Your task to perform on an android device: Search for "corsair k70" on ebay, select the first entry, and add it to the cart. Image 0: 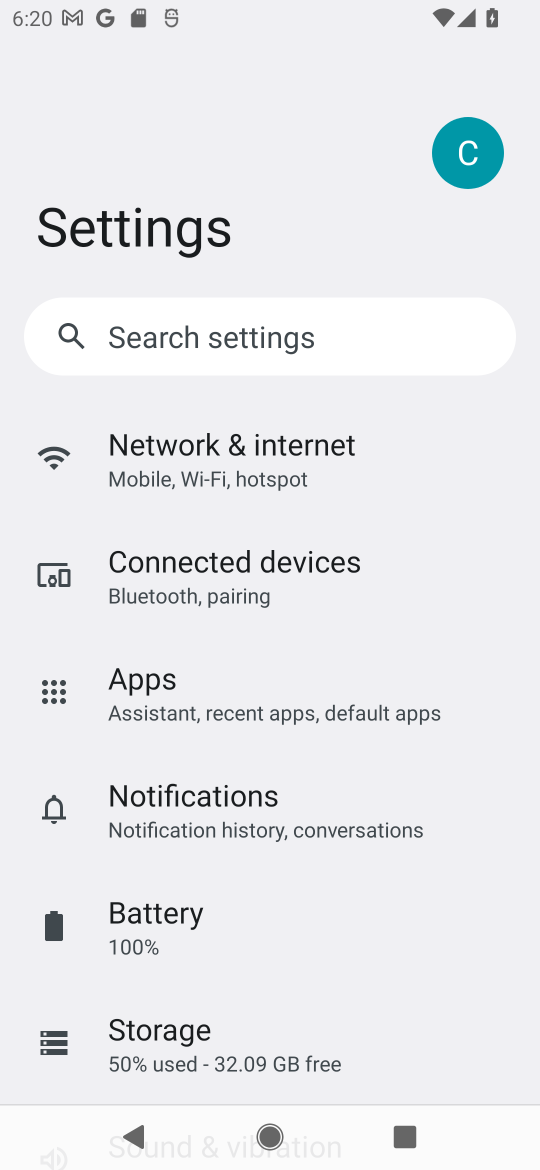
Step 0: press home button
Your task to perform on an android device: Search for "corsair k70" on ebay, select the first entry, and add it to the cart. Image 1: 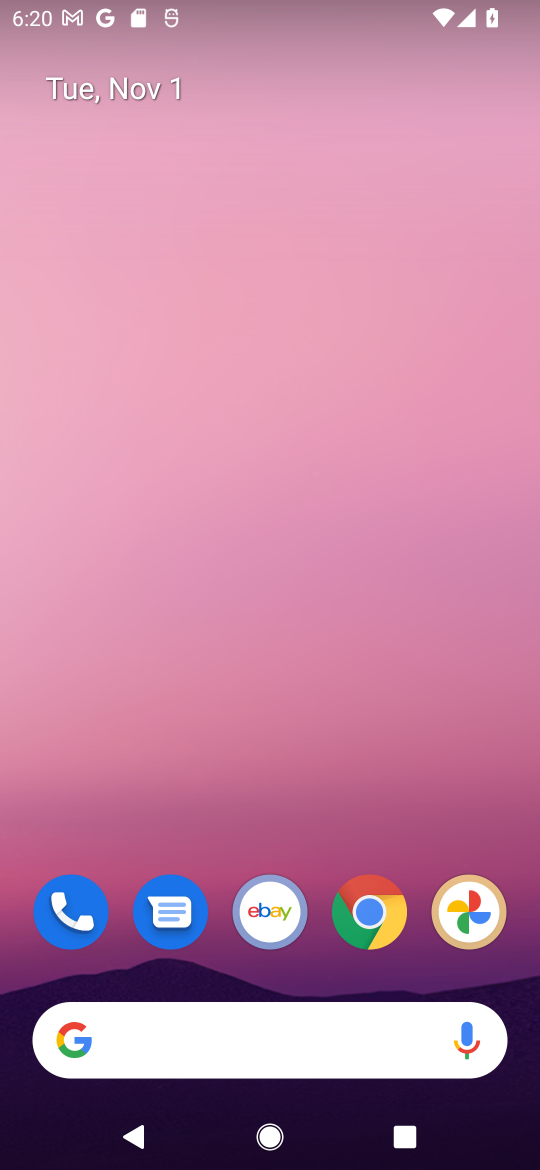
Step 1: click (75, 1045)
Your task to perform on an android device: Search for "corsair k70" on ebay, select the first entry, and add it to the cart. Image 2: 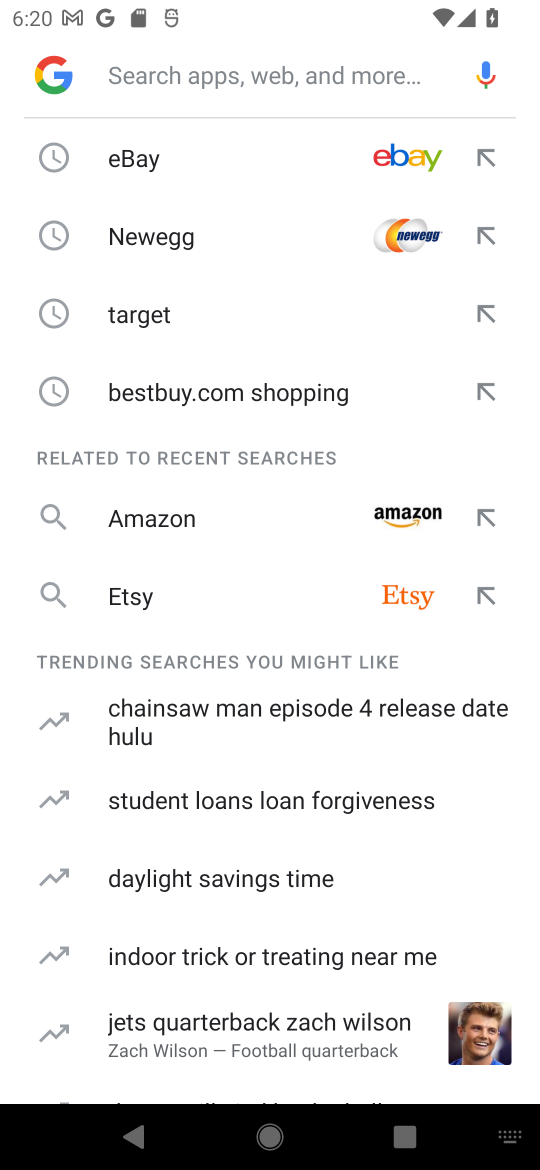
Step 2: click (193, 161)
Your task to perform on an android device: Search for "corsair k70" on ebay, select the first entry, and add it to the cart. Image 3: 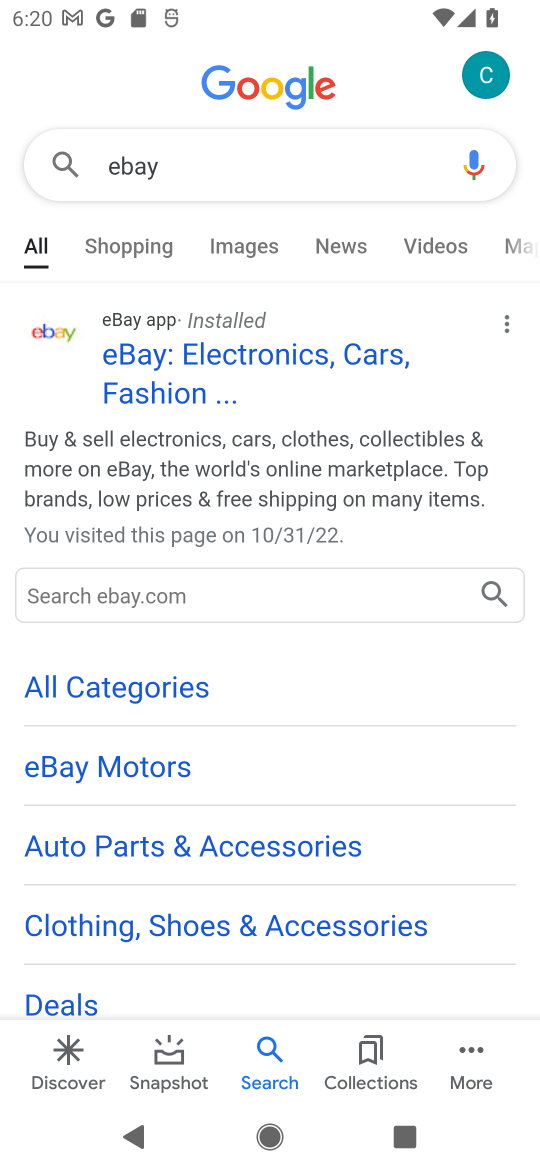
Step 3: click (162, 358)
Your task to perform on an android device: Search for "corsair k70" on ebay, select the first entry, and add it to the cart. Image 4: 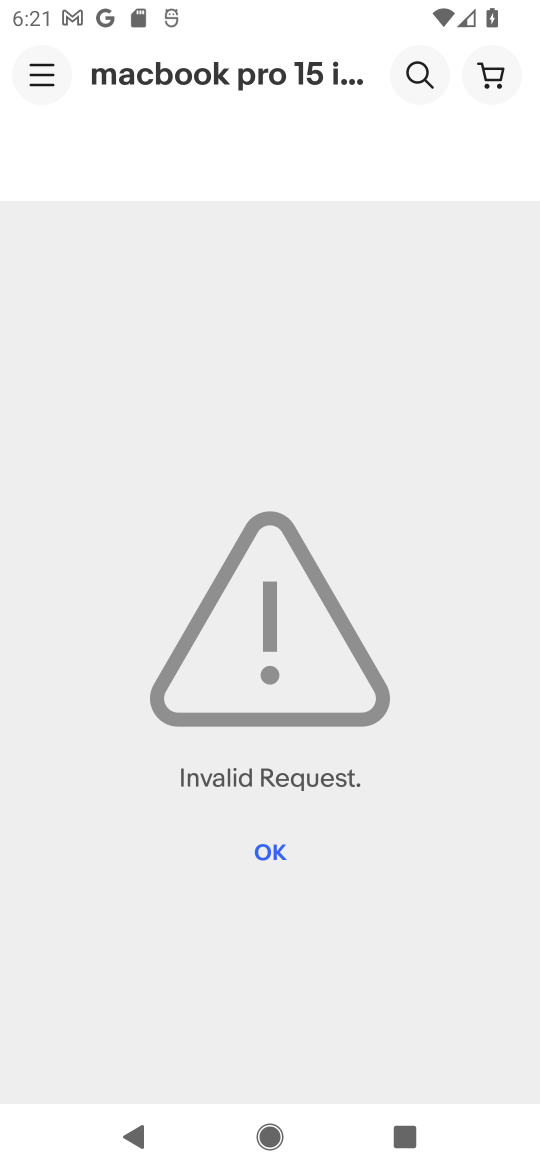
Step 4: click (410, 75)
Your task to perform on an android device: Search for "corsair k70" on ebay, select the first entry, and add it to the cart. Image 5: 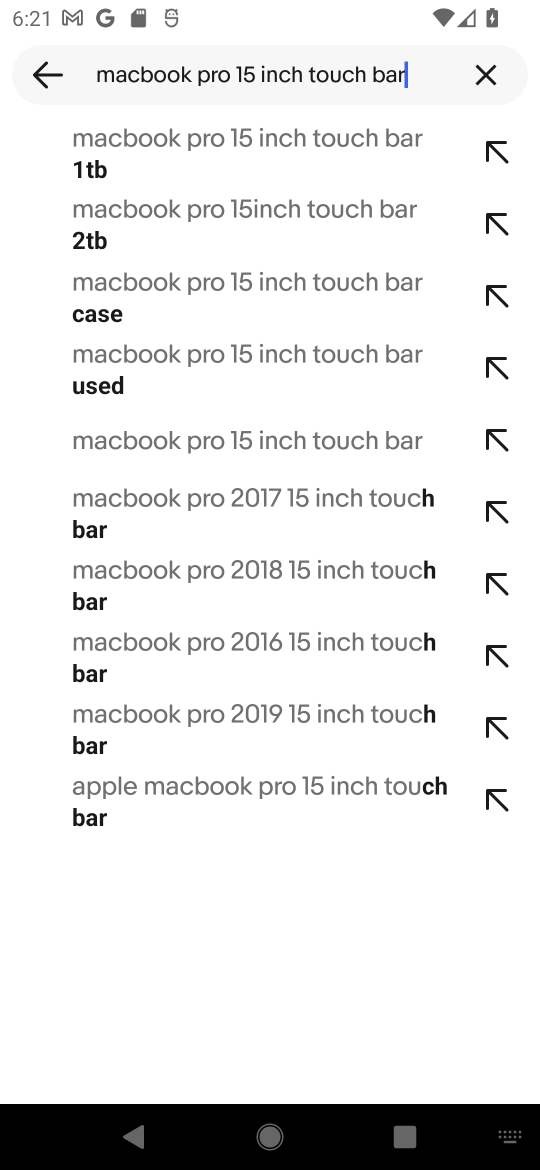
Step 5: click (483, 75)
Your task to perform on an android device: Search for "corsair k70" on ebay, select the first entry, and add it to the cart. Image 6: 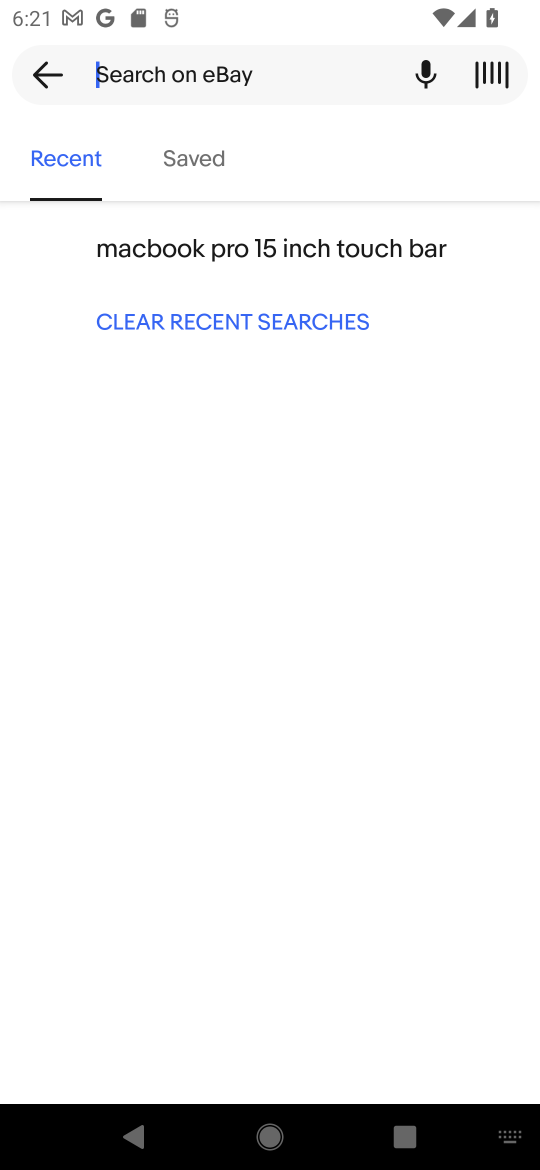
Step 6: click (269, 77)
Your task to perform on an android device: Search for "corsair k70" on ebay, select the first entry, and add it to the cart. Image 7: 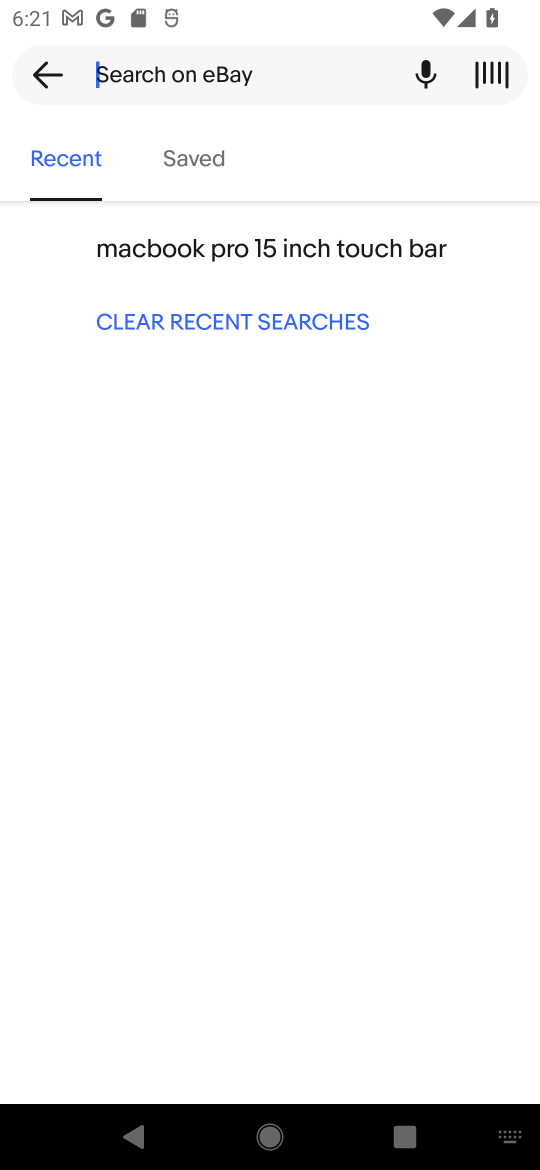
Step 7: type "corsair k70"
Your task to perform on an android device: Search for "corsair k70" on ebay, select the first entry, and add it to the cart. Image 8: 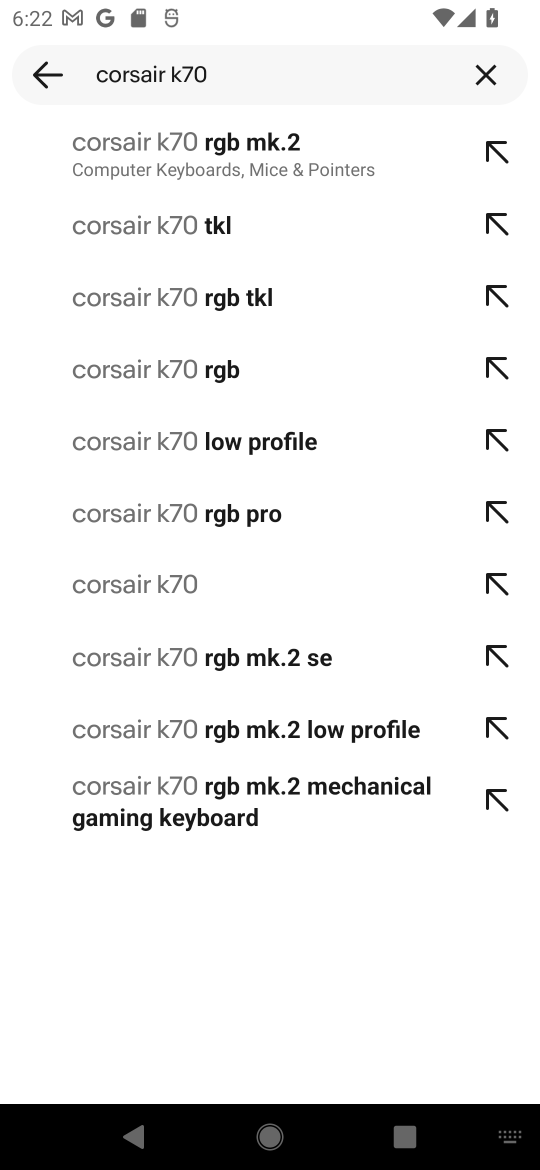
Step 8: click (163, 152)
Your task to perform on an android device: Search for "corsair k70" on ebay, select the first entry, and add it to the cart. Image 9: 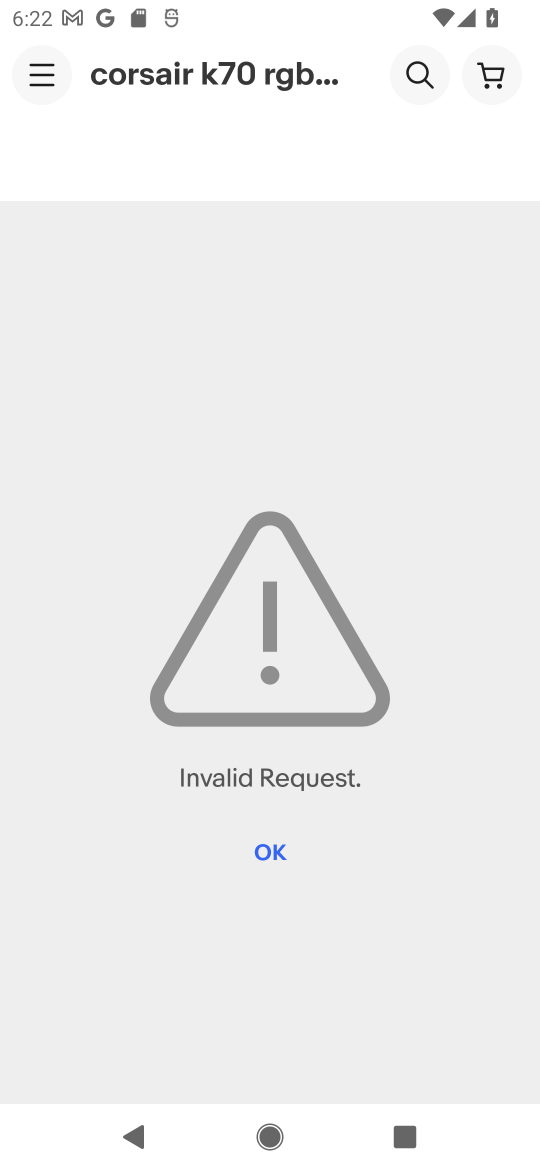
Step 9: task complete